Your task to perform on an android device: check battery use Image 0: 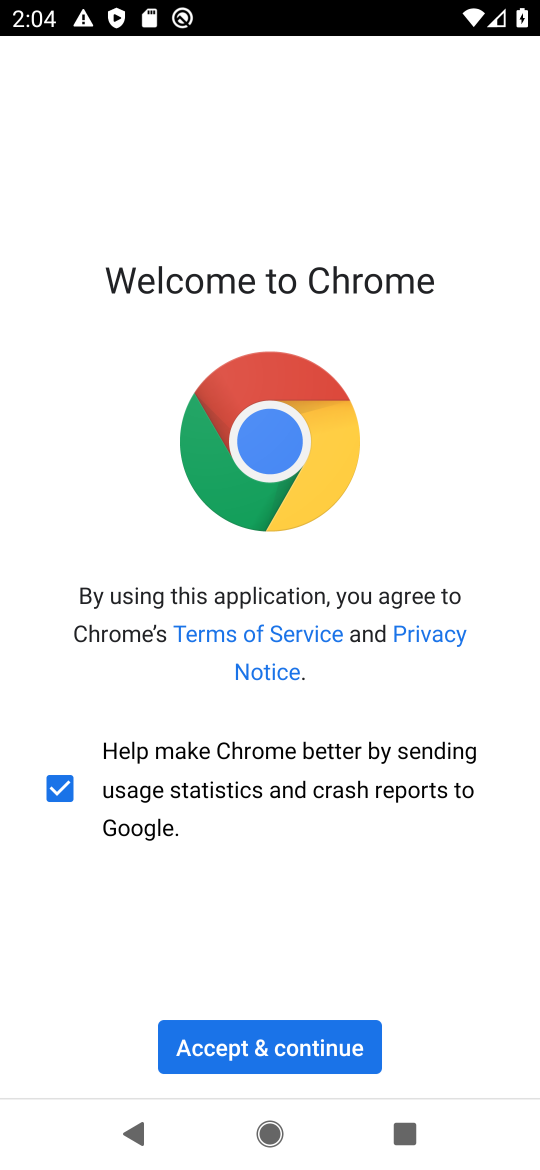
Step 0: press home button
Your task to perform on an android device: check battery use Image 1: 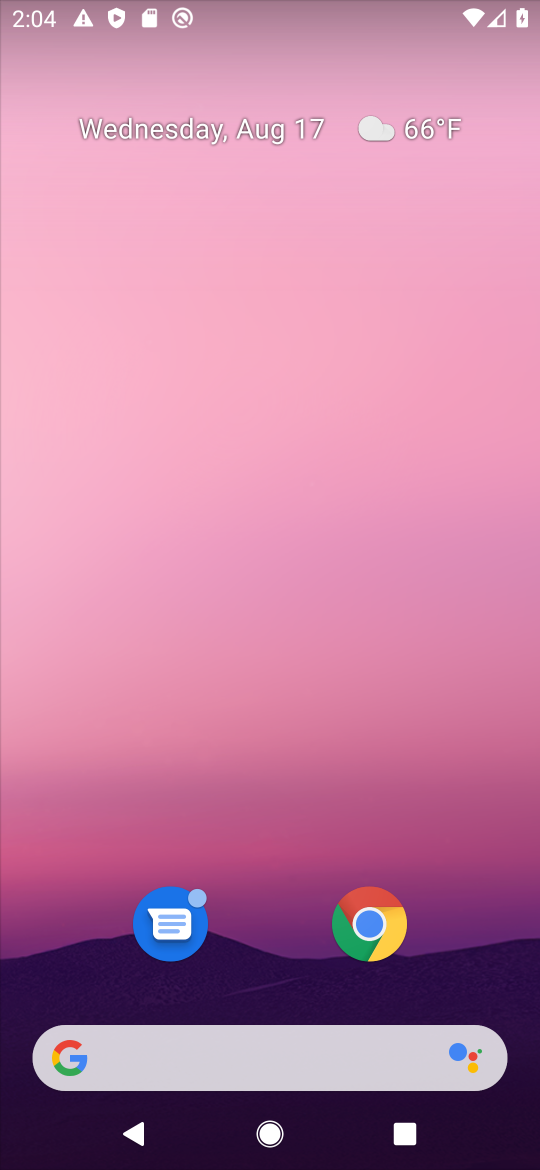
Step 1: drag from (254, 1067) to (335, 135)
Your task to perform on an android device: check battery use Image 2: 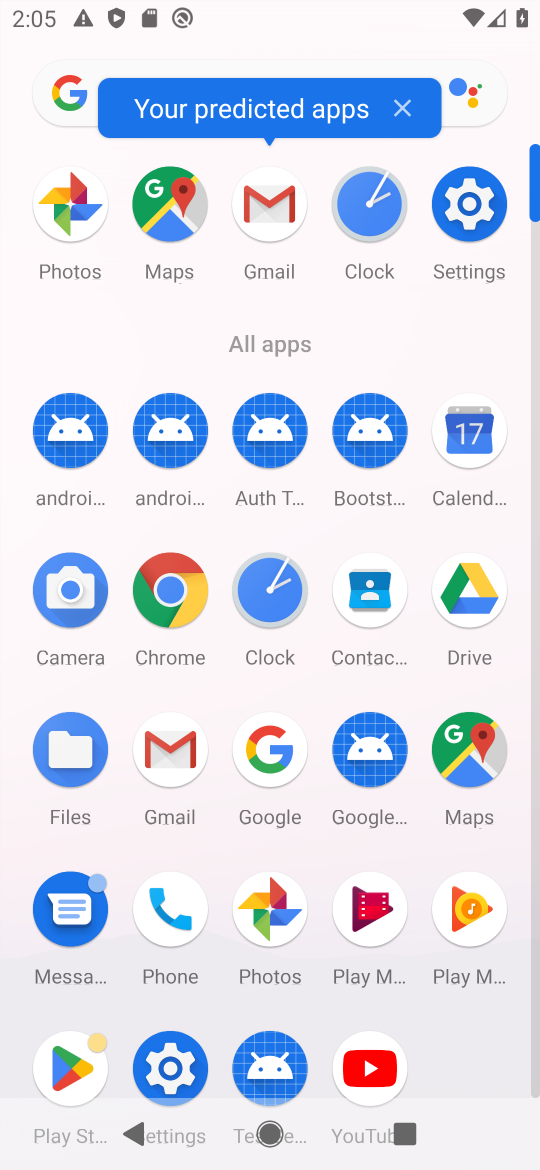
Step 2: click (473, 207)
Your task to perform on an android device: check battery use Image 3: 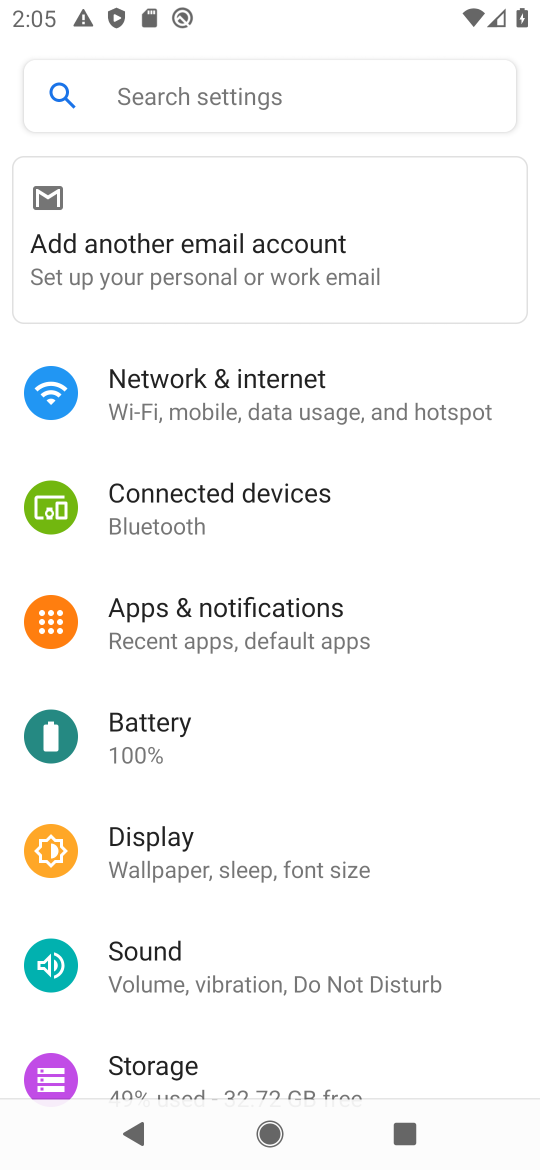
Step 3: click (141, 717)
Your task to perform on an android device: check battery use Image 4: 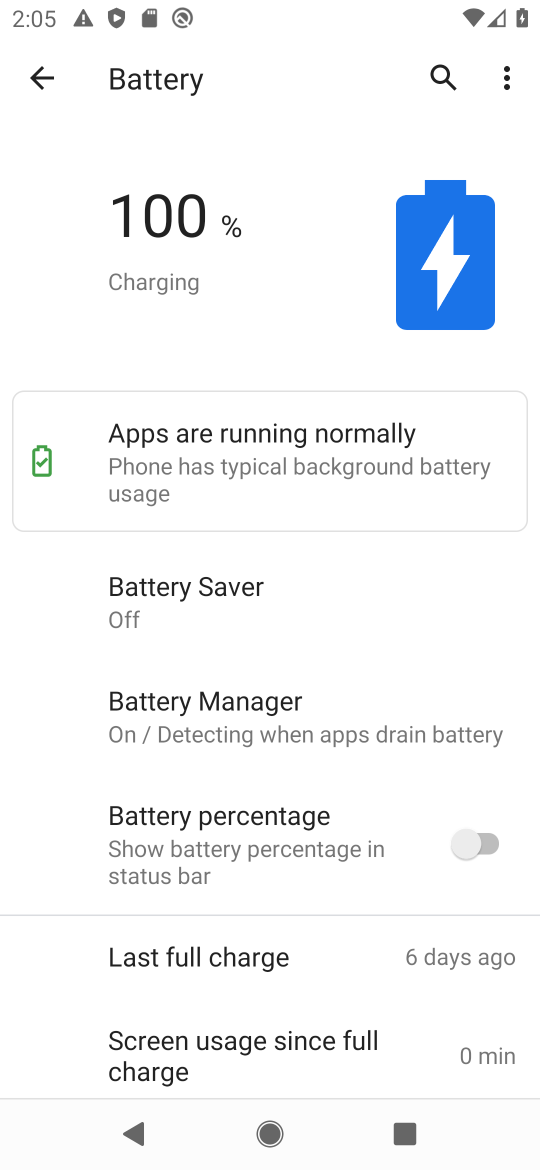
Step 4: click (510, 70)
Your task to perform on an android device: check battery use Image 5: 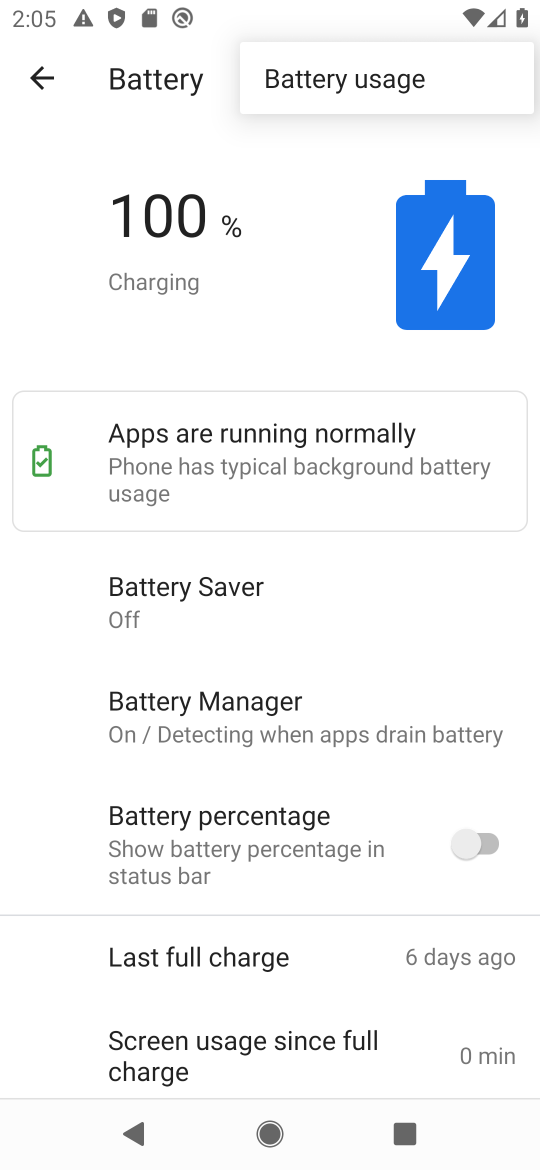
Step 5: click (387, 76)
Your task to perform on an android device: check battery use Image 6: 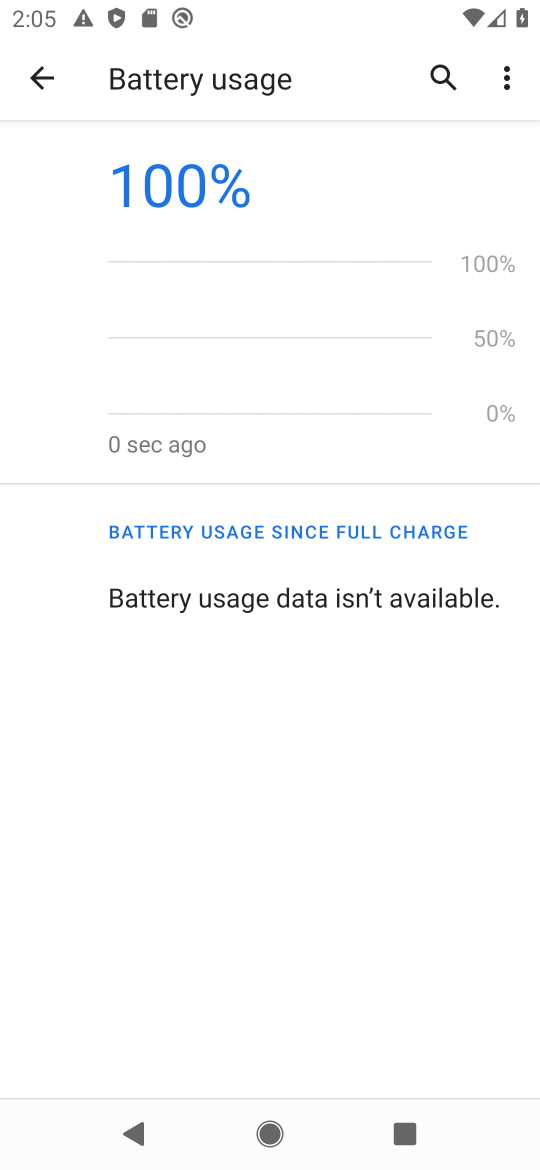
Step 6: task complete